Your task to perform on an android device: toggle airplane mode Image 0: 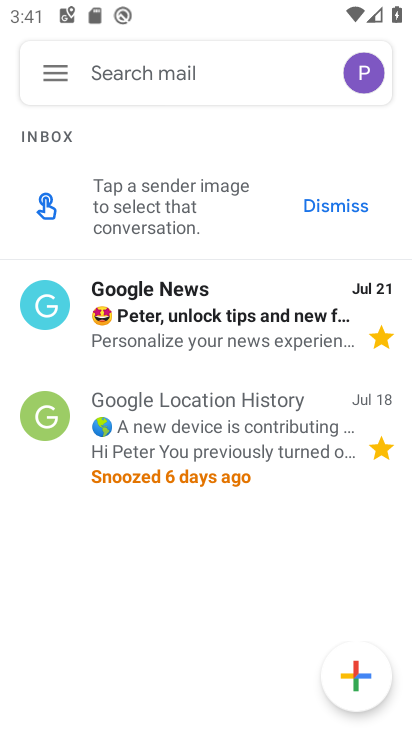
Step 0: press home button
Your task to perform on an android device: toggle airplane mode Image 1: 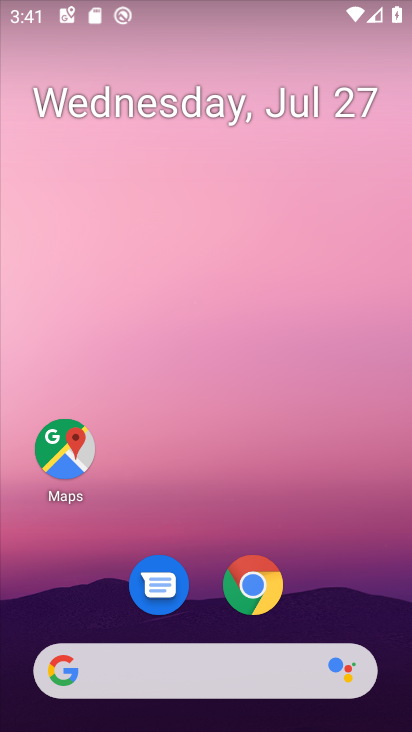
Step 1: drag from (320, 574) to (325, 42)
Your task to perform on an android device: toggle airplane mode Image 2: 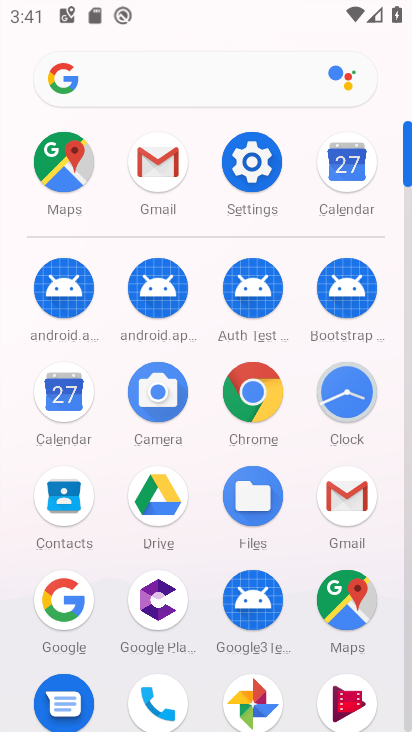
Step 2: click (260, 169)
Your task to perform on an android device: toggle airplane mode Image 3: 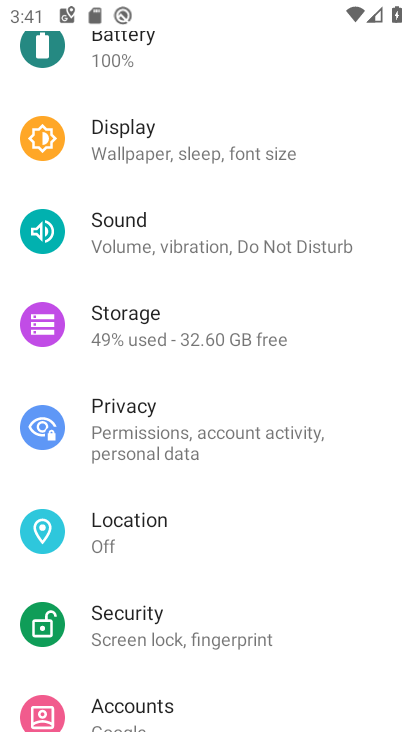
Step 3: drag from (238, 309) to (236, 589)
Your task to perform on an android device: toggle airplane mode Image 4: 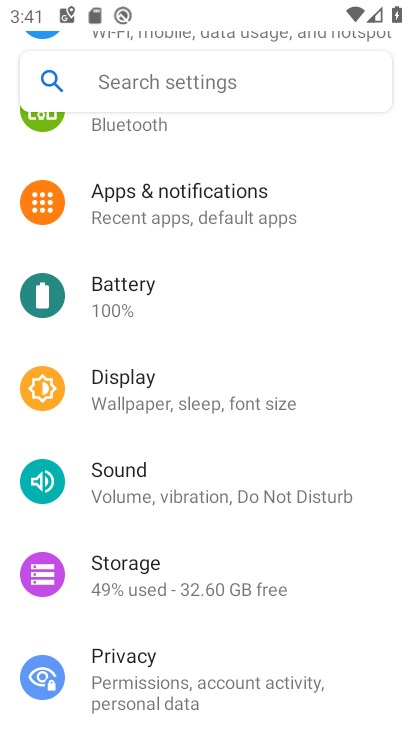
Step 4: drag from (229, 357) to (272, 613)
Your task to perform on an android device: toggle airplane mode Image 5: 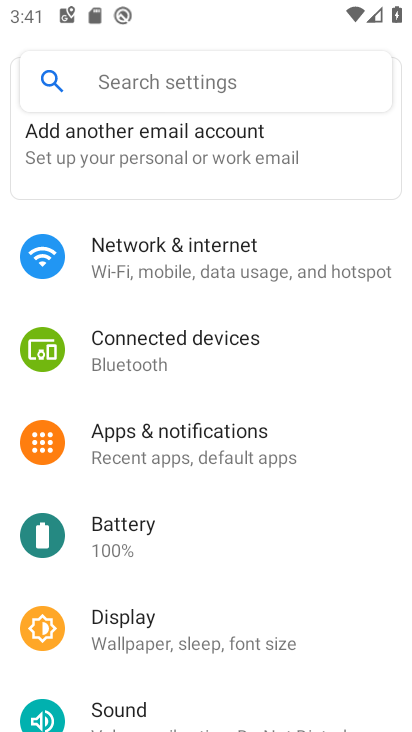
Step 5: drag from (233, 396) to (238, 559)
Your task to perform on an android device: toggle airplane mode Image 6: 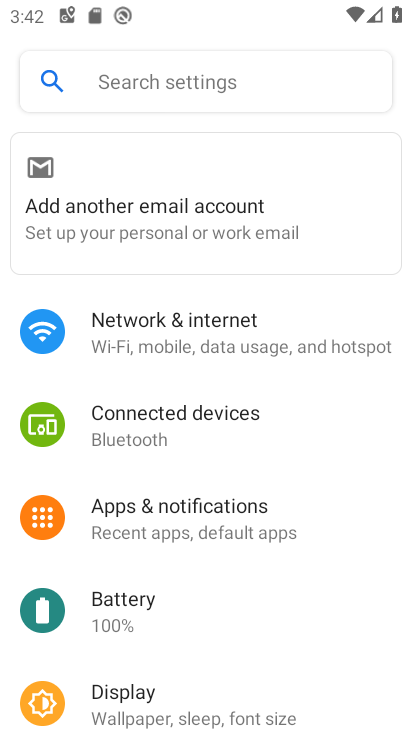
Step 6: click (211, 335)
Your task to perform on an android device: toggle airplane mode Image 7: 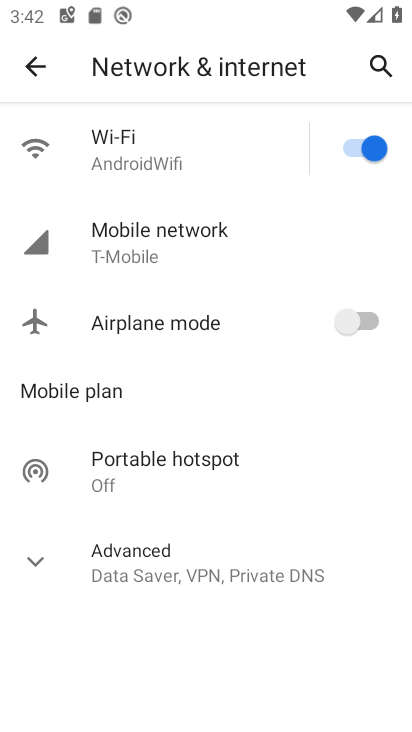
Step 7: click (349, 317)
Your task to perform on an android device: toggle airplane mode Image 8: 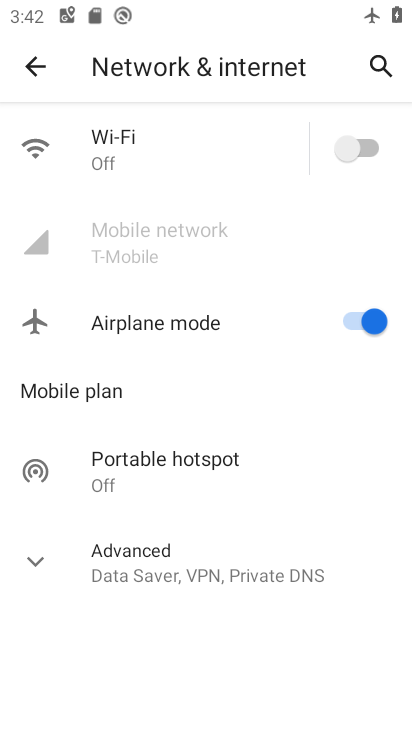
Step 8: task complete